Your task to perform on an android device: install app "Google Pay: Save, Pay, Manage" Image 0: 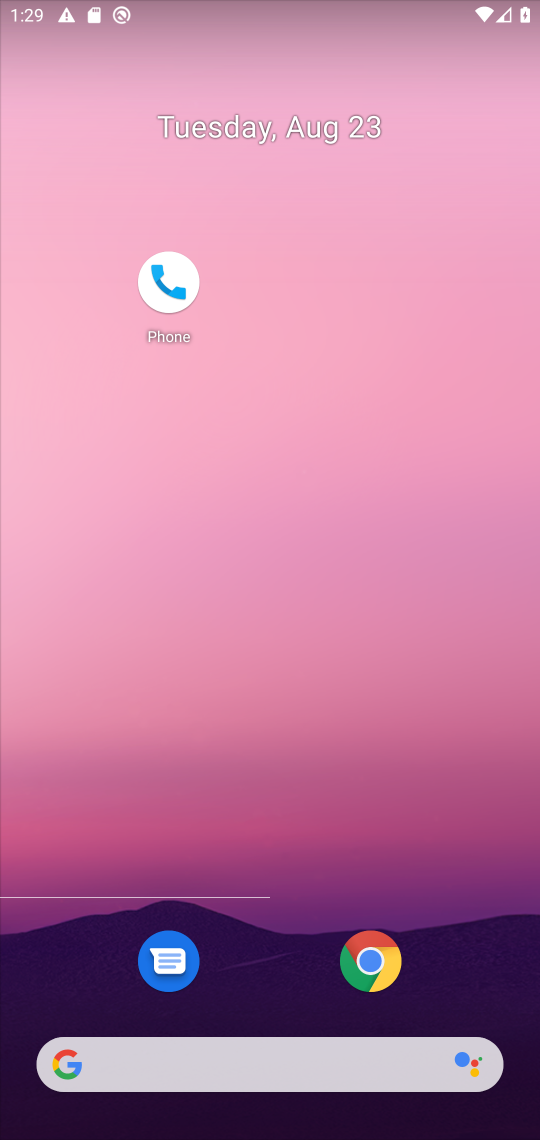
Step 0: drag from (280, 1013) to (375, 71)
Your task to perform on an android device: install app "Google Pay: Save, Pay, Manage" Image 1: 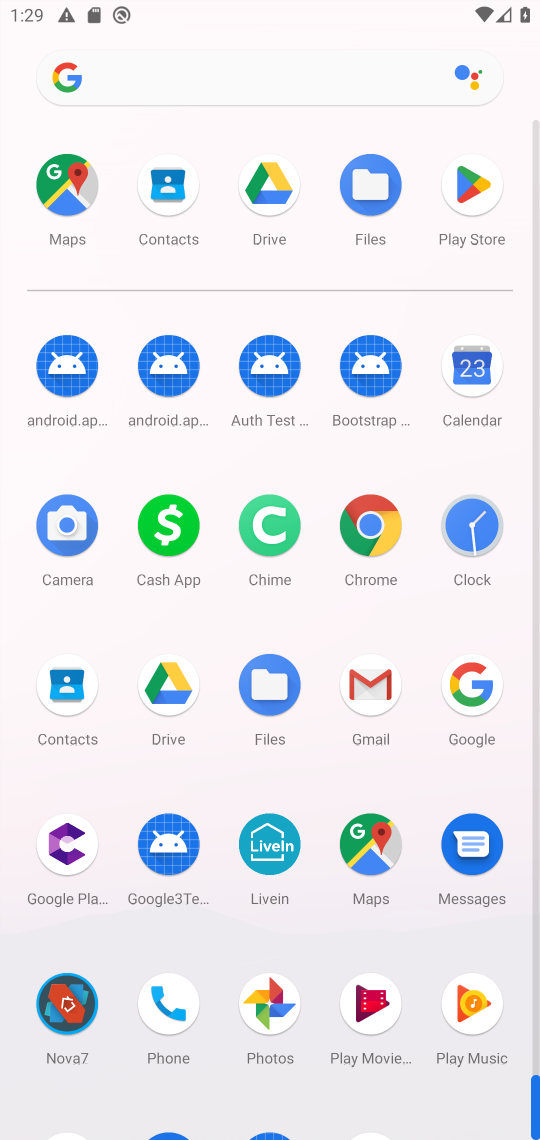
Step 1: click (490, 183)
Your task to perform on an android device: install app "Google Pay: Save, Pay, Manage" Image 2: 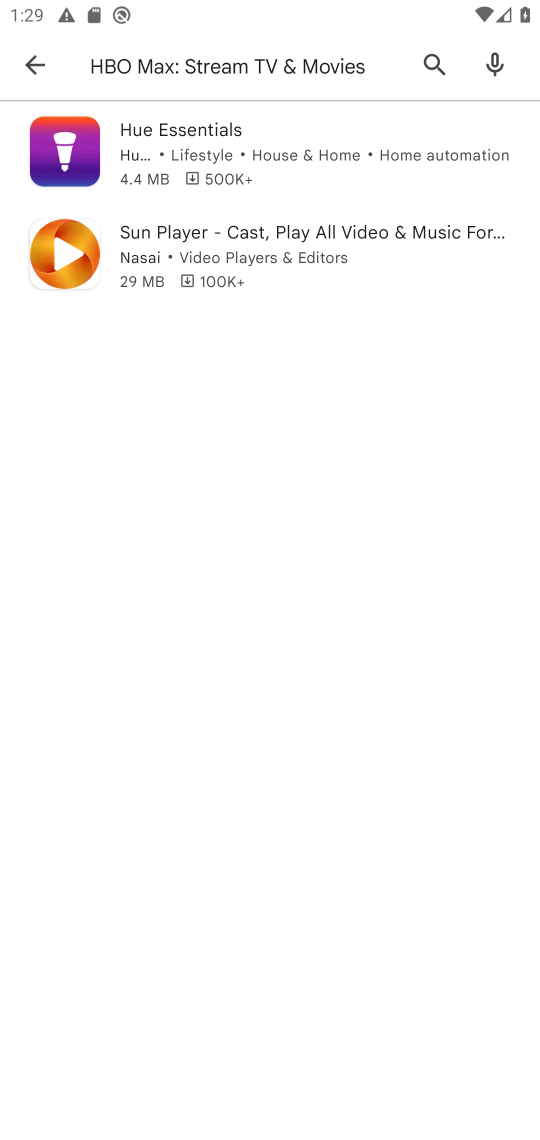
Step 2: task complete